Your task to perform on an android device: Is it going to rain tomorrow? Image 0: 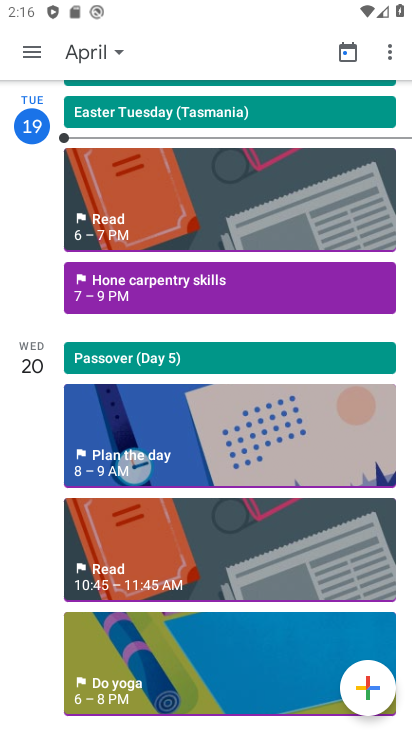
Step 0: press home button
Your task to perform on an android device: Is it going to rain tomorrow? Image 1: 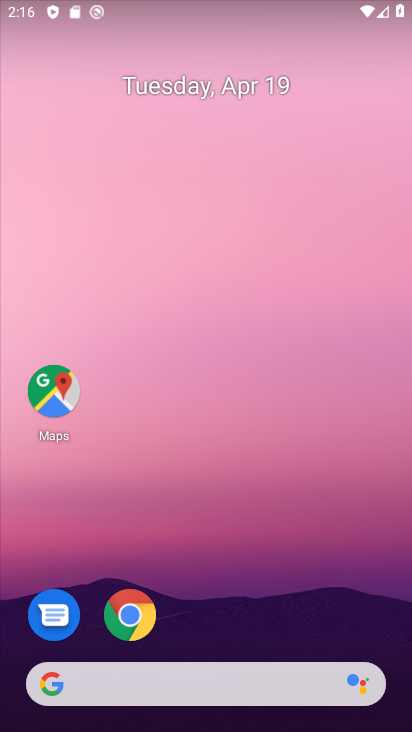
Step 1: drag from (232, 597) to (251, 238)
Your task to perform on an android device: Is it going to rain tomorrow? Image 2: 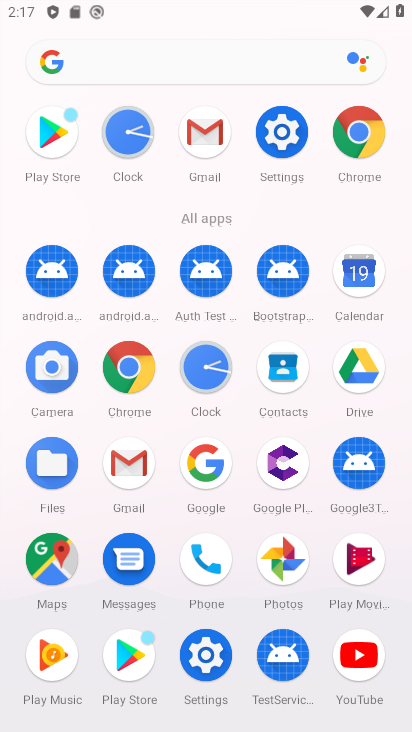
Step 2: click (130, 367)
Your task to perform on an android device: Is it going to rain tomorrow? Image 3: 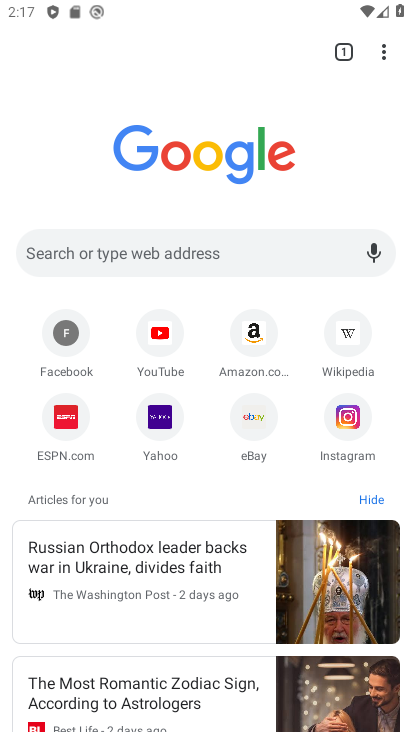
Step 3: click (228, 240)
Your task to perform on an android device: Is it going to rain tomorrow? Image 4: 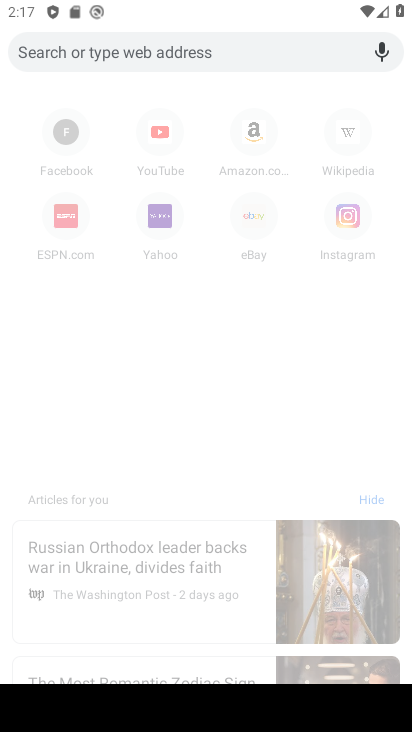
Step 4: type "Is it going to rain tomorrow?"
Your task to perform on an android device: Is it going to rain tomorrow? Image 5: 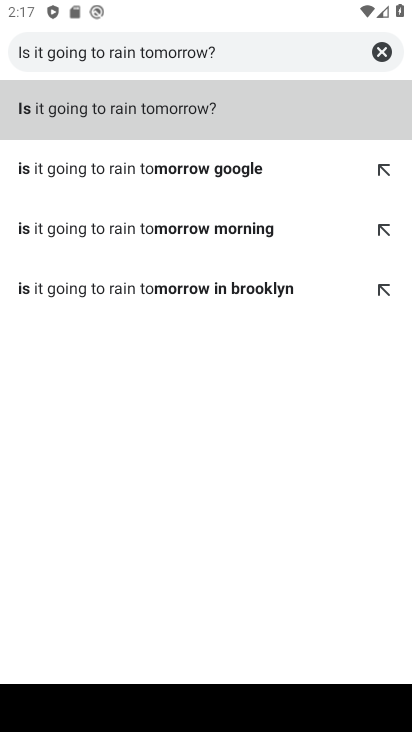
Step 5: click (103, 117)
Your task to perform on an android device: Is it going to rain tomorrow? Image 6: 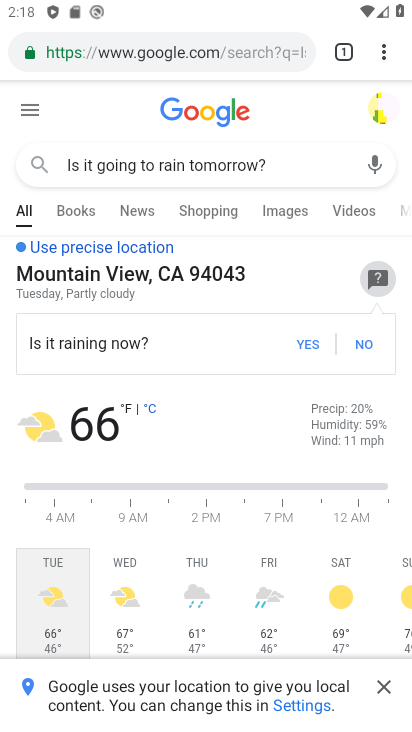
Step 6: task complete